Your task to perform on an android device: Go to calendar. Show me events next week Image 0: 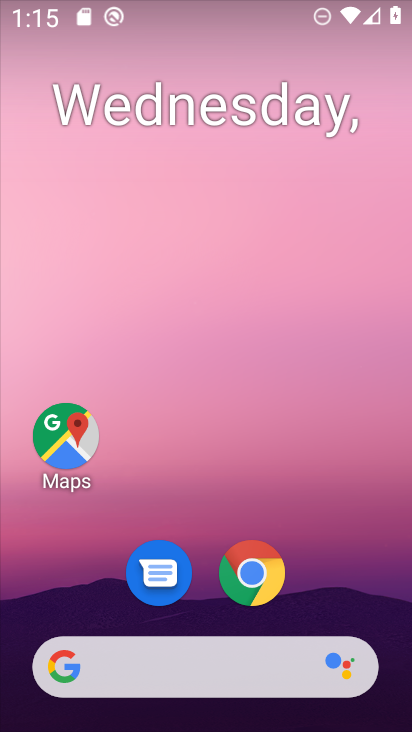
Step 0: drag from (202, 622) to (319, 2)
Your task to perform on an android device: Go to calendar. Show me events next week Image 1: 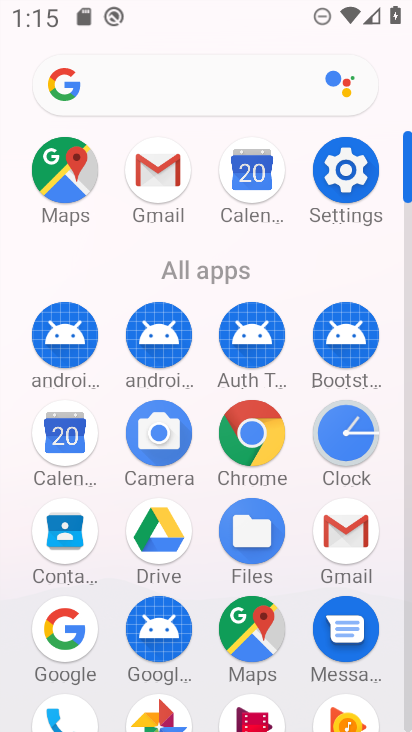
Step 1: click (57, 444)
Your task to perform on an android device: Go to calendar. Show me events next week Image 2: 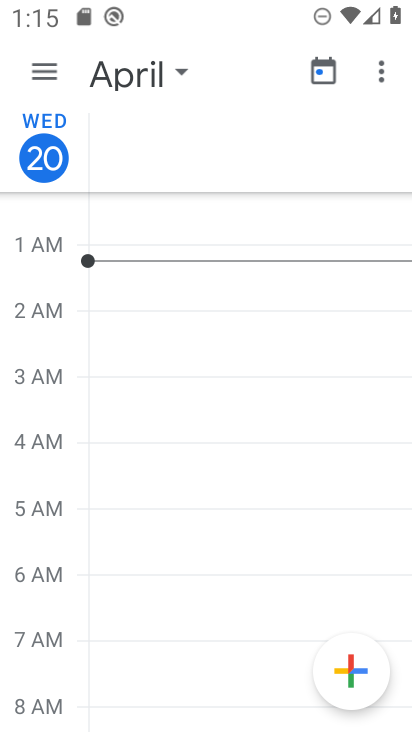
Step 2: click (40, 78)
Your task to perform on an android device: Go to calendar. Show me events next week Image 3: 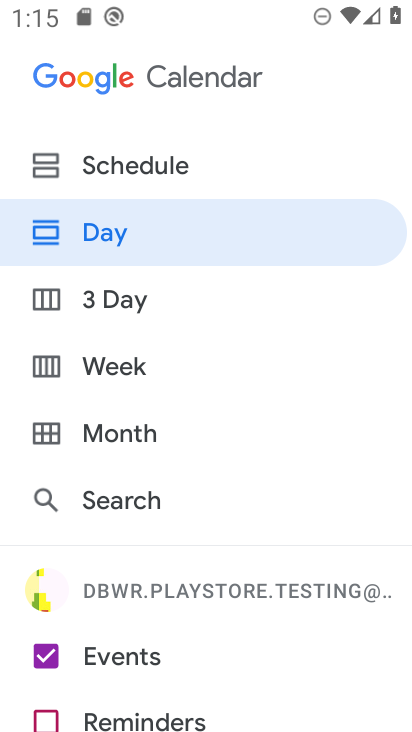
Step 3: click (125, 369)
Your task to perform on an android device: Go to calendar. Show me events next week Image 4: 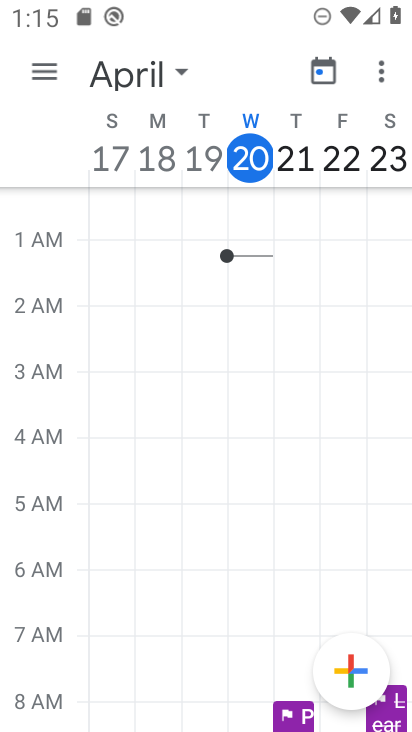
Step 4: click (29, 54)
Your task to perform on an android device: Go to calendar. Show me events next week Image 5: 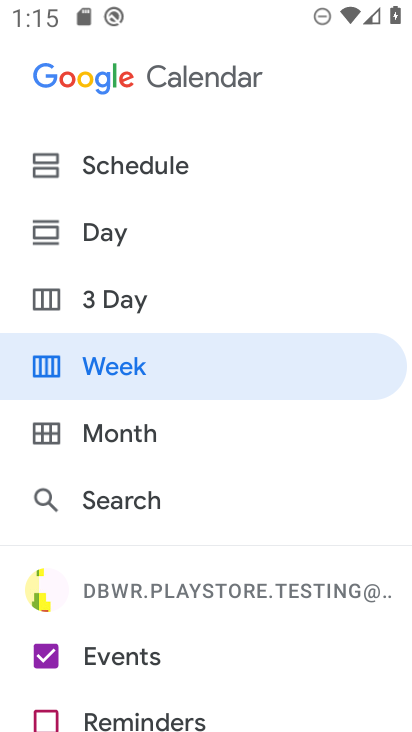
Step 5: click (85, 367)
Your task to perform on an android device: Go to calendar. Show me events next week Image 6: 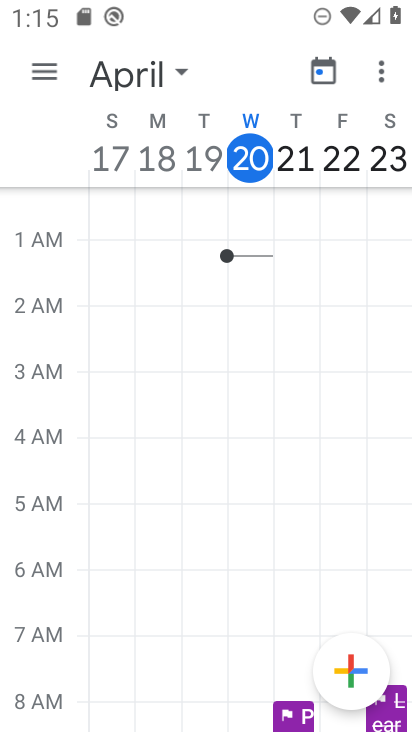
Step 6: task complete